Your task to perform on an android device: Set the phone to "Do not disturb". Image 0: 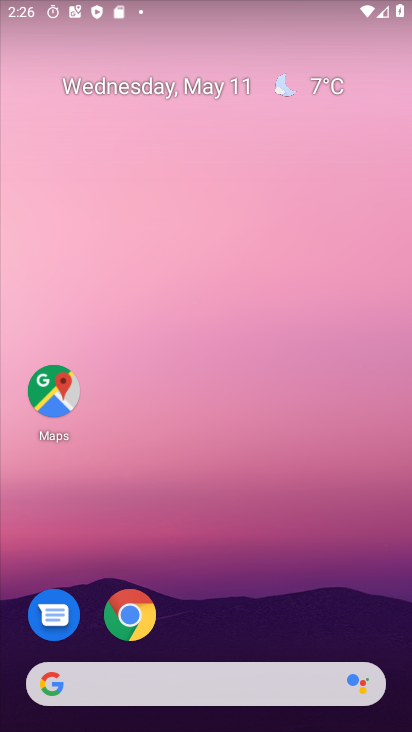
Step 0: drag from (244, 678) to (219, 190)
Your task to perform on an android device: Set the phone to "Do not disturb". Image 1: 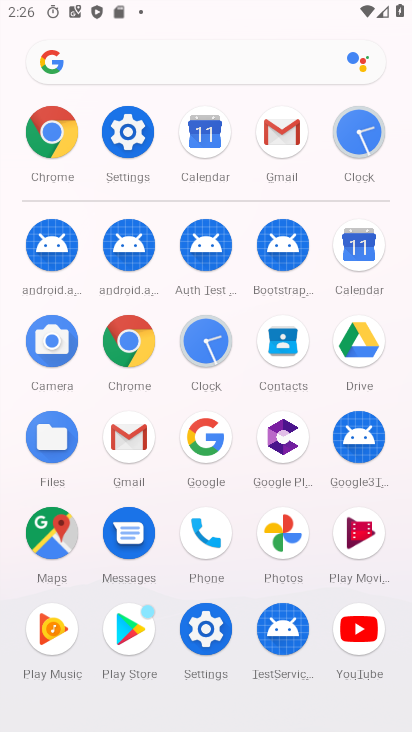
Step 1: click (130, 151)
Your task to perform on an android device: Set the phone to "Do not disturb". Image 2: 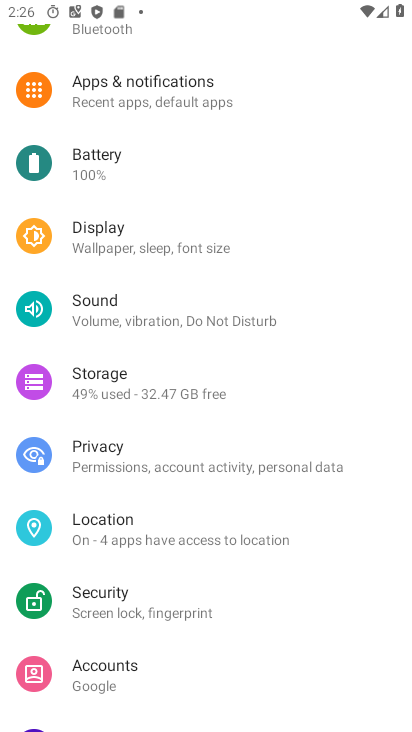
Step 2: click (113, 319)
Your task to perform on an android device: Set the phone to "Do not disturb". Image 3: 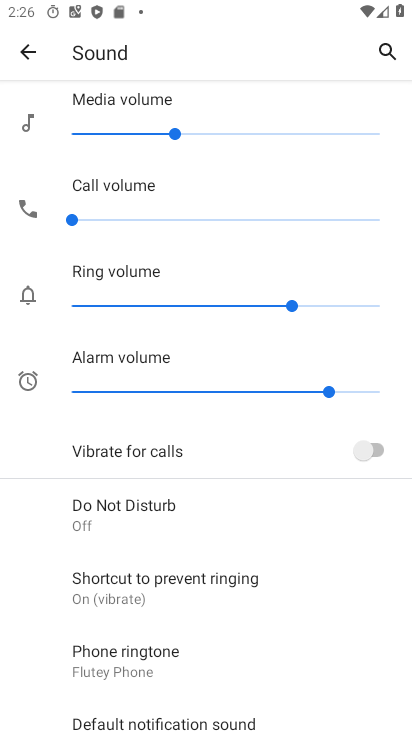
Step 3: click (119, 514)
Your task to perform on an android device: Set the phone to "Do not disturb". Image 4: 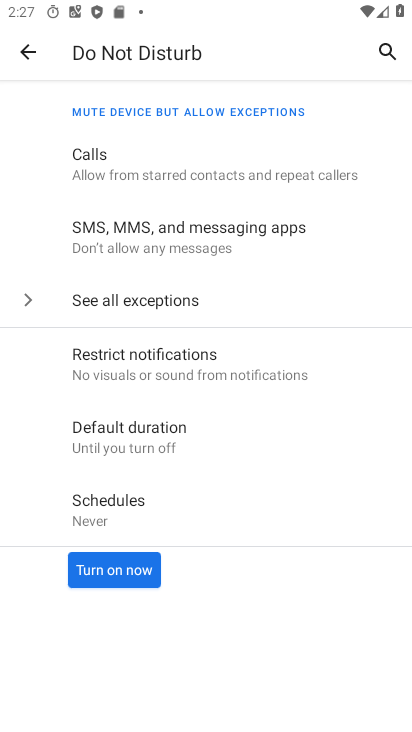
Step 4: click (114, 572)
Your task to perform on an android device: Set the phone to "Do not disturb". Image 5: 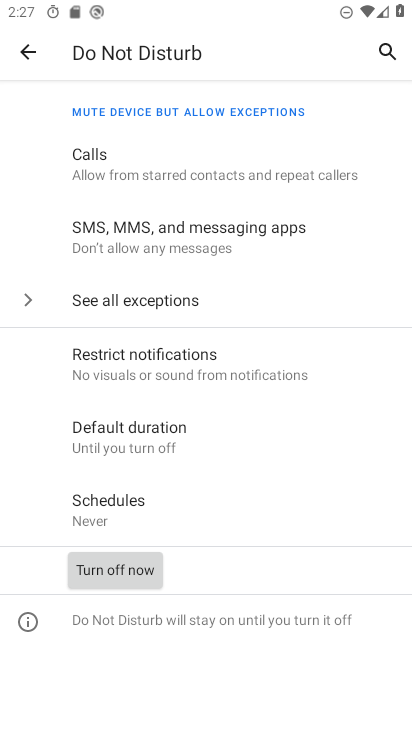
Step 5: task complete